Your task to perform on an android device: change keyboard looks Image 0: 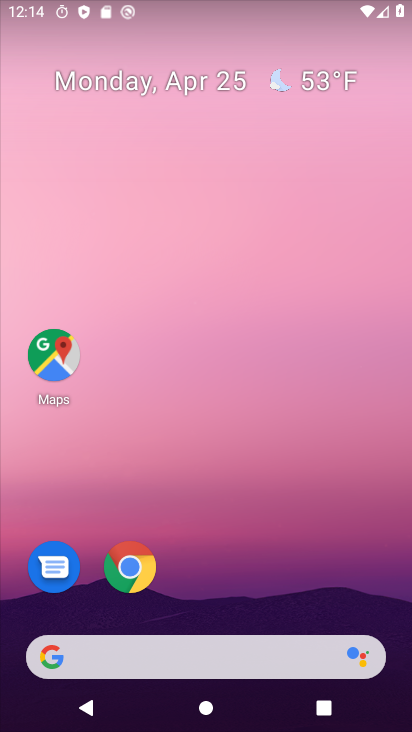
Step 0: drag from (301, 562) to (309, 80)
Your task to perform on an android device: change keyboard looks Image 1: 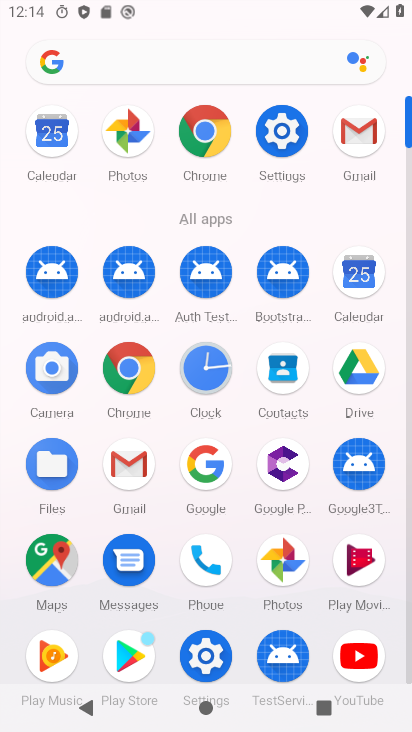
Step 1: click (289, 121)
Your task to perform on an android device: change keyboard looks Image 2: 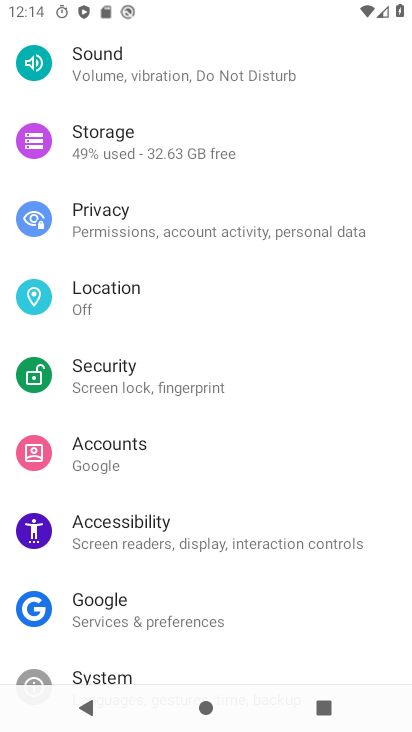
Step 2: drag from (240, 568) to (265, 172)
Your task to perform on an android device: change keyboard looks Image 3: 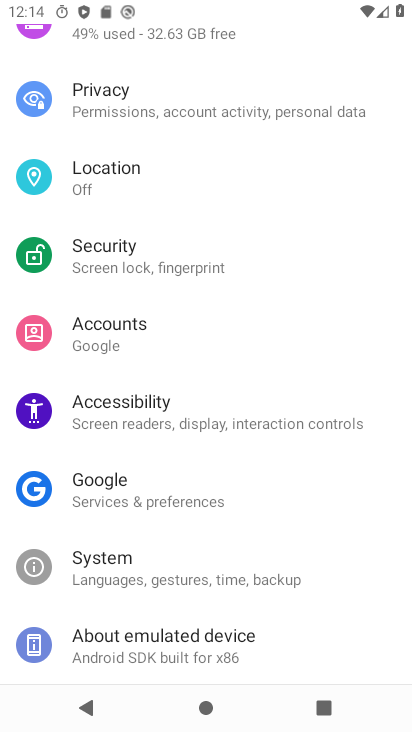
Step 3: click (191, 568)
Your task to perform on an android device: change keyboard looks Image 4: 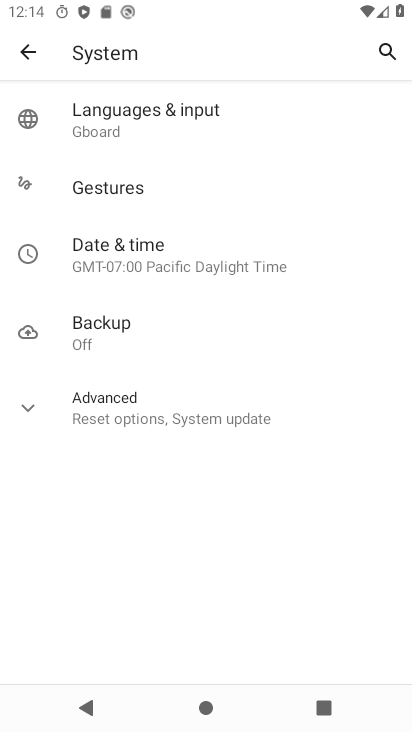
Step 4: click (183, 119)
Your task to perform on an android device: change keyboard looks Image 5: 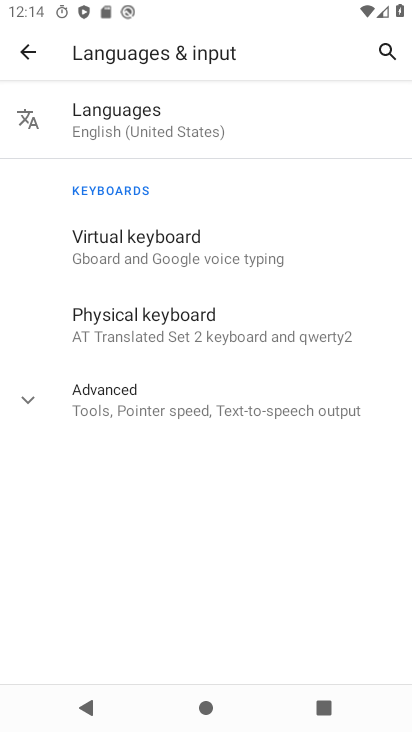
Step 5: click (166, 244)
Your task to perform on an android device: change keyboard looks Image 6: 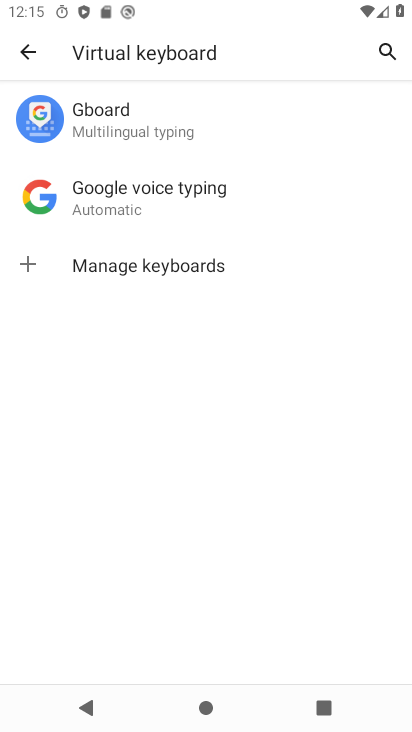
Step 6: click (163, 124)
Your task to perform on an android device: change keyboard looks Image 7: 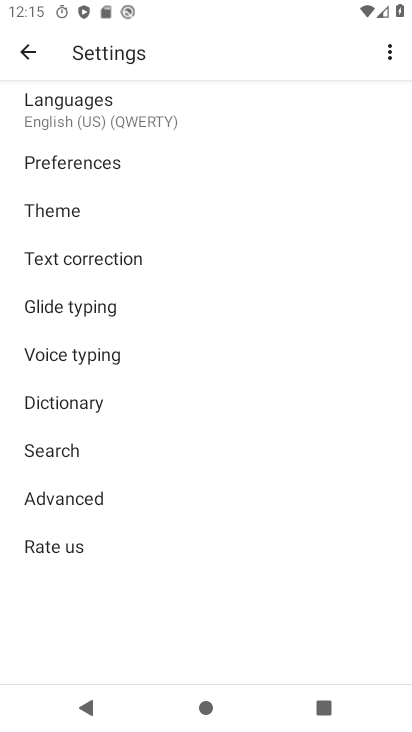
Step 7: click (116, 214)
Your task to perform on an android device: change keyboard looks Image 8: 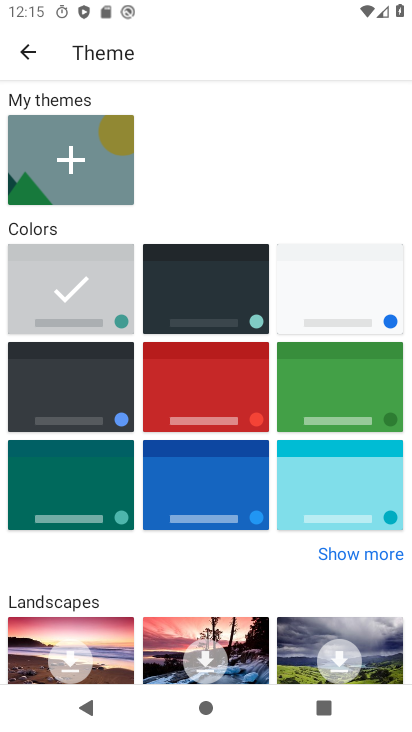
Step 8: click (250, 281)
Your task to perform on an android device: change keyboard looks Image 9: 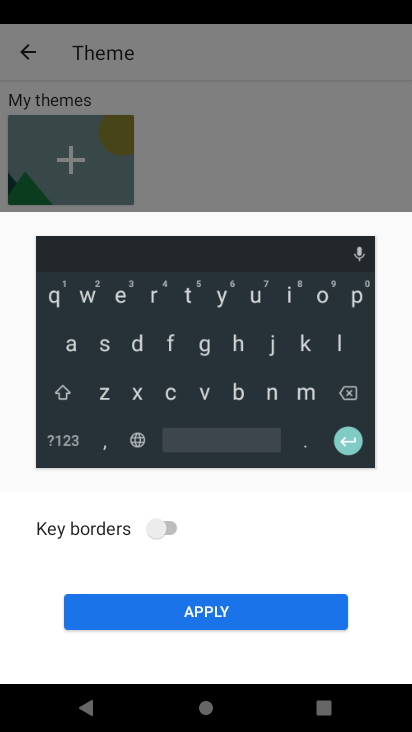
Step 9: click (164, 517)
Your task to perform on an android device: change keyboard looks Image 10: 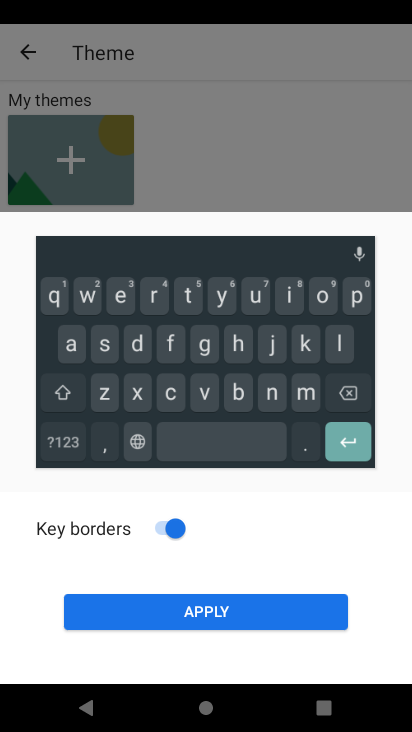
Step 10: click (186, 611)
Your task to perform on an android device: change keyboard looks Image 11: 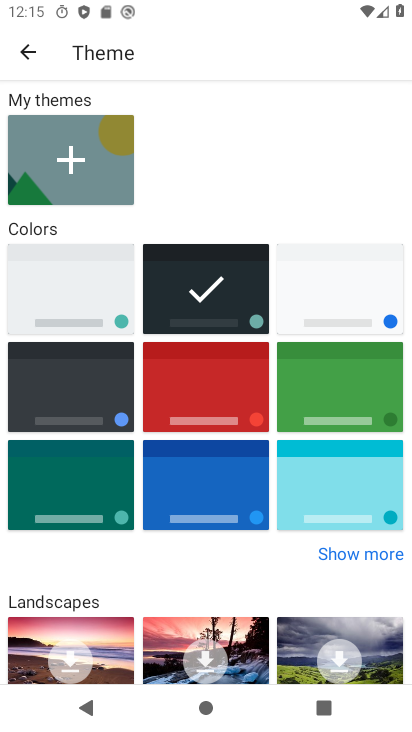
Step 11: task complete